Your task to perform on an android device: change the upload size in google photos Image 0: 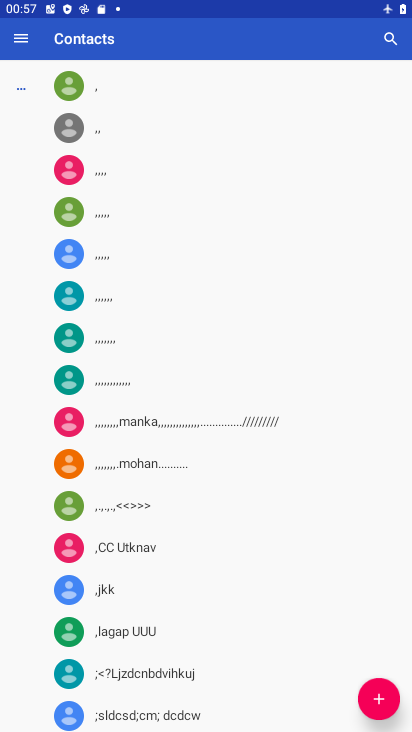
Step 0: press home button
Your task to perform on an android device: change the upload size in google photos Image 1: 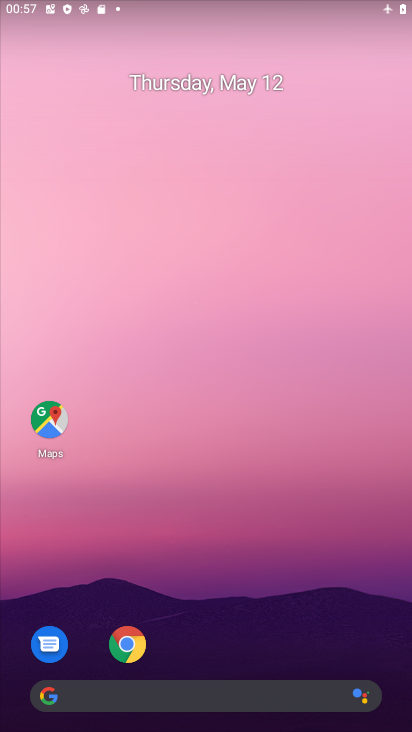
Step 1: drag from (240, 646) to (270, 106)
Your task to perform on an android device: change the upload size in google photos Image 2: 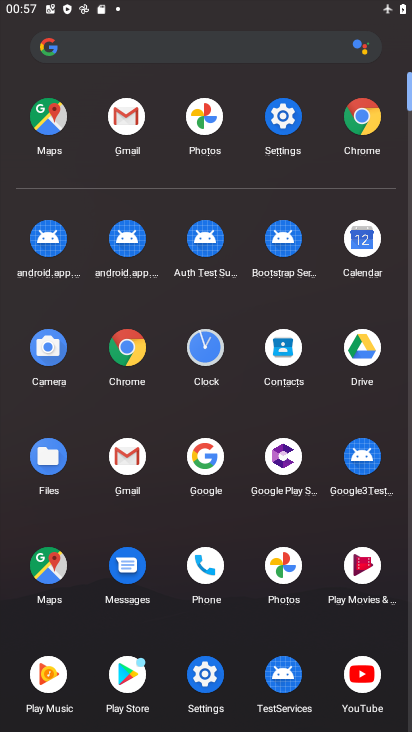
Step 2: click (192, 115)
Your task to perform on an android device: change the upload size in google photos Image 3: 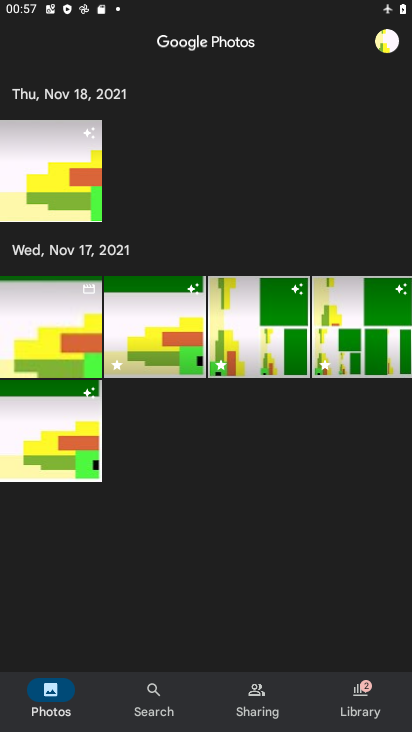
Step 3: click (376, 46)
Your task to perform on an android device: change the upload size in google photos Image 4: 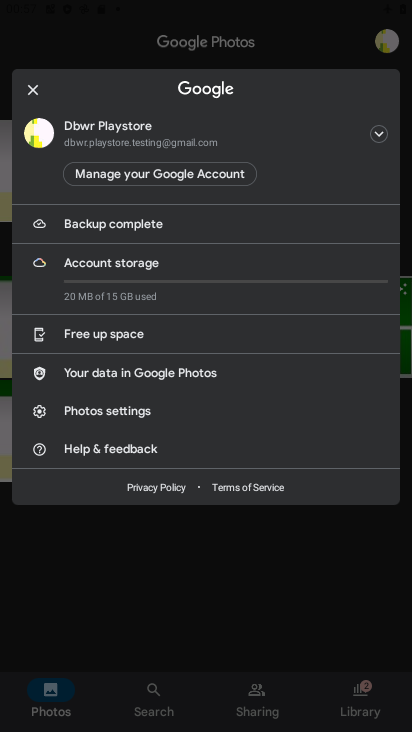
Step 4: click (218, 402)
Your task to perform on an android device: change the upload size in google photos Image 5: 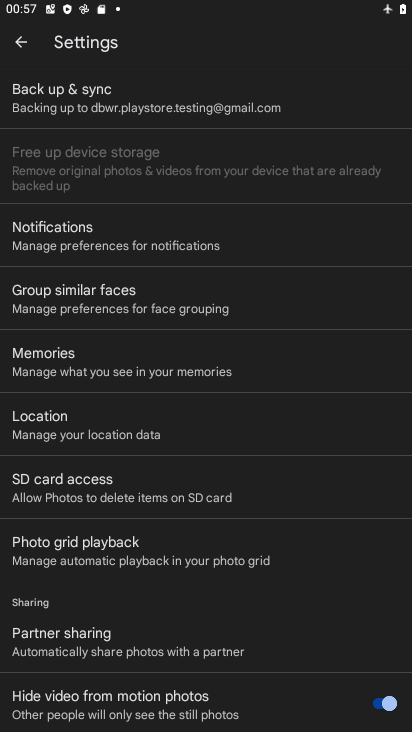
Step 5: click (157, 122)
Your task to perform on an android device: change the upload size in google photos Image 6: 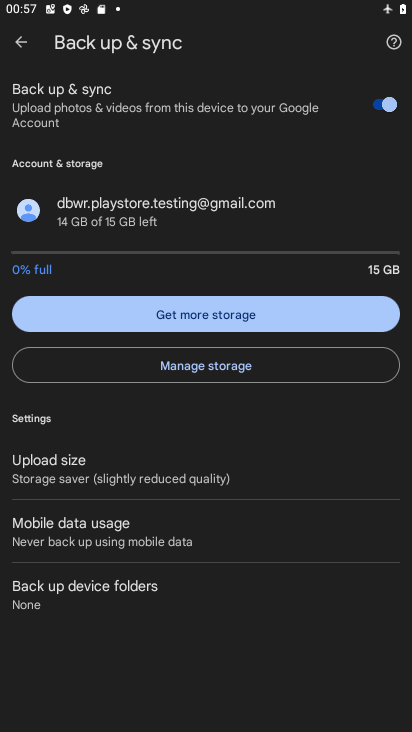
Step 6: click (141, 473)
Your task to perform on an android device: change the upload size in google photos Image 7: 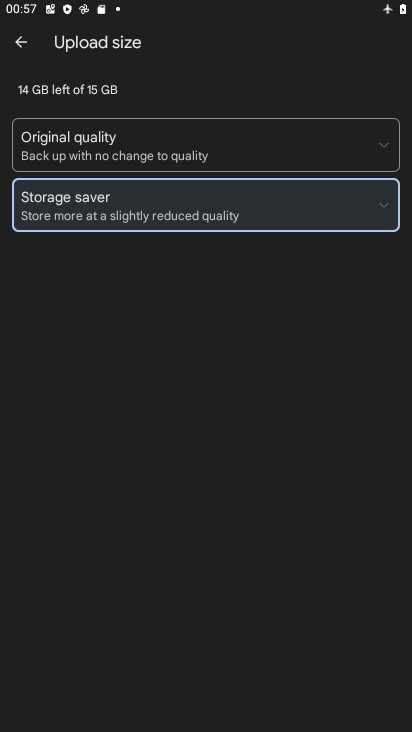
Step 7: click (172, 134)
Your task to perform on an android device: change the upload size in google photos Image 8: 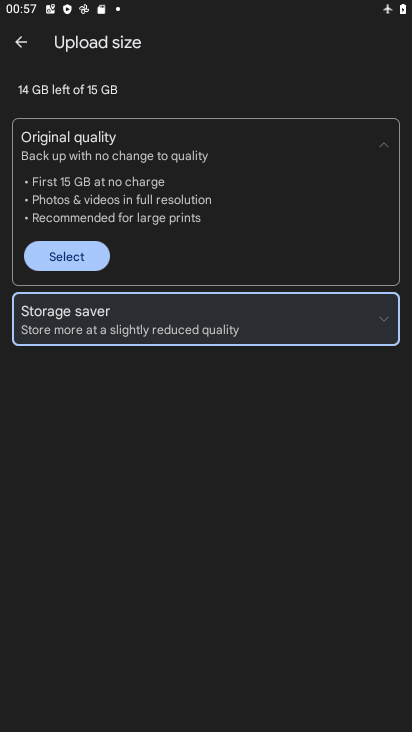
Step 8: click (57, 264)
Your task to perform on an android device: change the upload size in google photos Image 9: 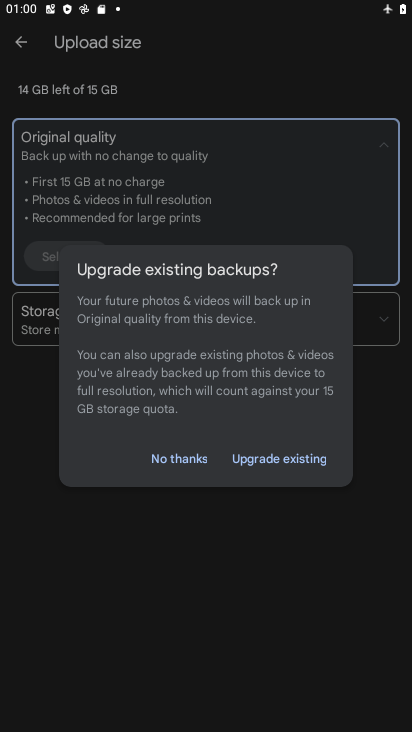
Step 9: task complete